Your task to perform on an android device: change notifications settings Image 0: 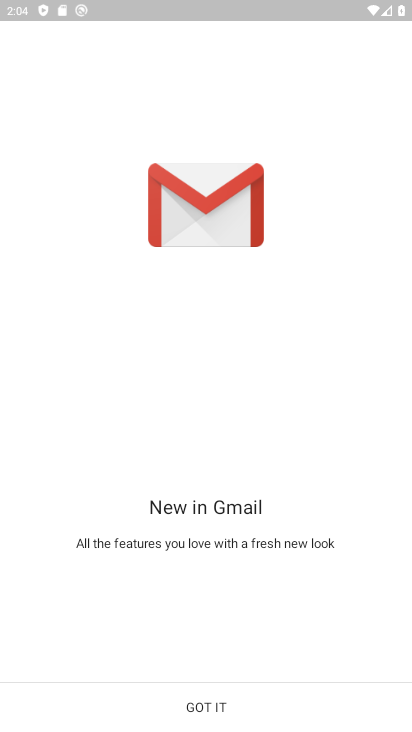
Step 0: click (198, 712)
Your task to perform on an android device: change notifications settings Image 1: 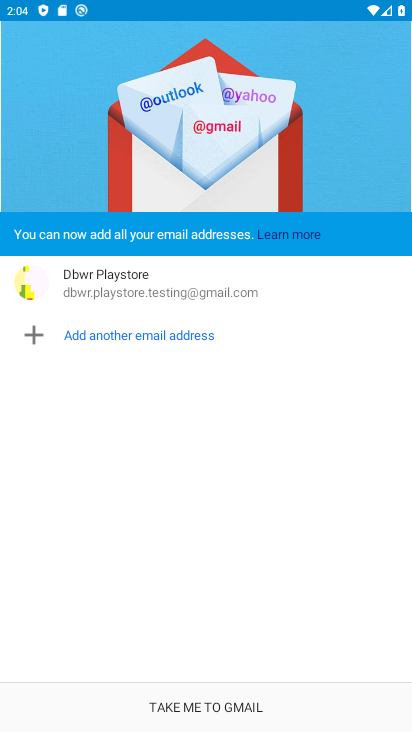
Step 1: click (238, 712)
Your task to perform on an android device: change notifications settings Image 2: 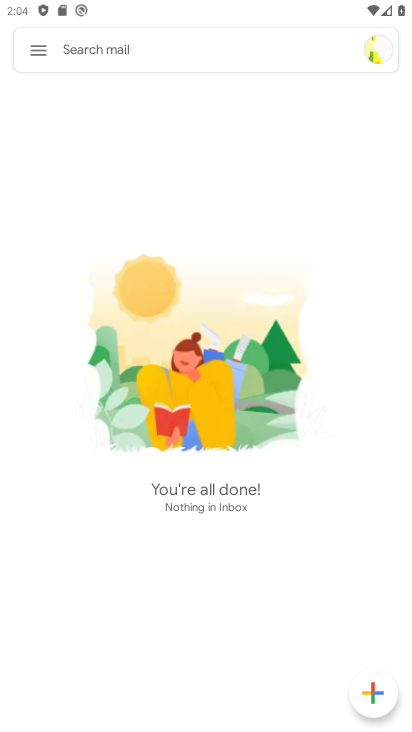
Step 2: press home button
Your task to perform on an android device: change notifications settings Image 3: 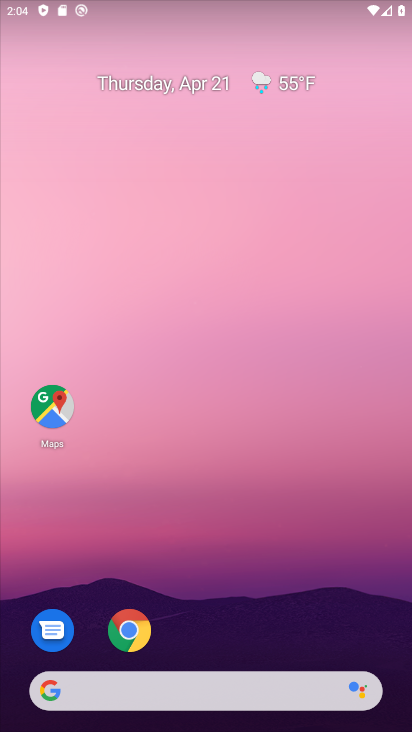
Step 3: drag from (245, 454) to (251, 208)
Your task to perform on an android device: change notifications settings Image 4: 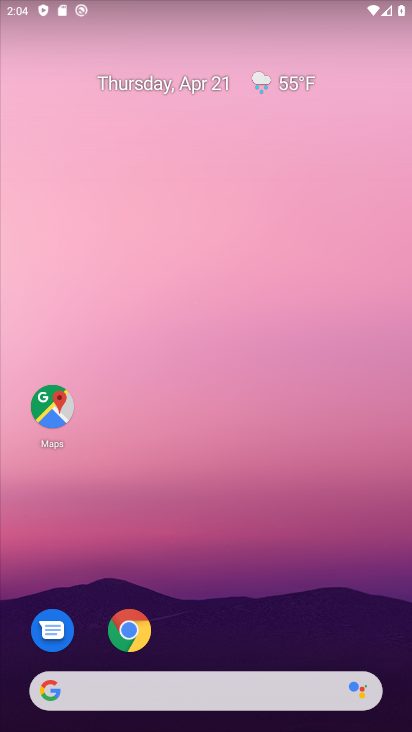
Step 4: drag from (249, 487) to (272, 197)
Your task to perform on an android device: change notifications settings Image 5: 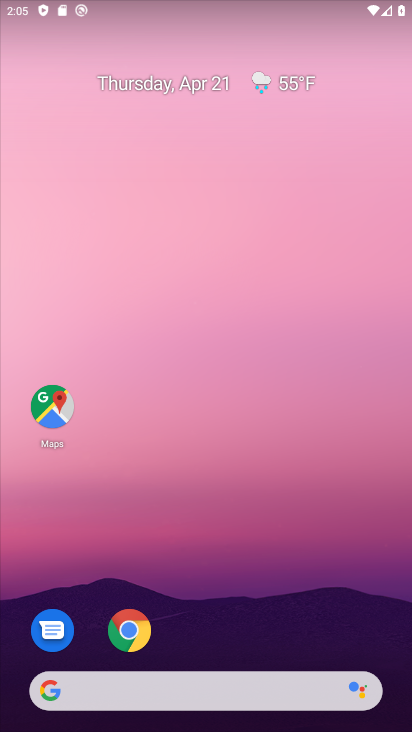
Step 5: drag from (235, 605) to (249, 158)
Your task to perform on an android device: change notifications settings Image 6: 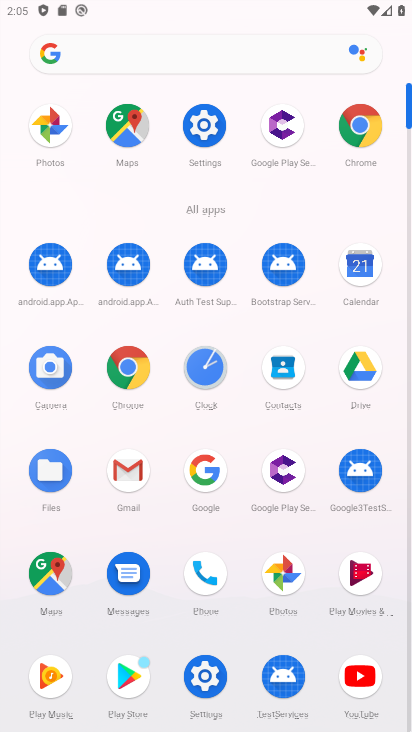
Step 6: click (211, 138)
Your task to perform on an android device: change notifications settings Image 7: 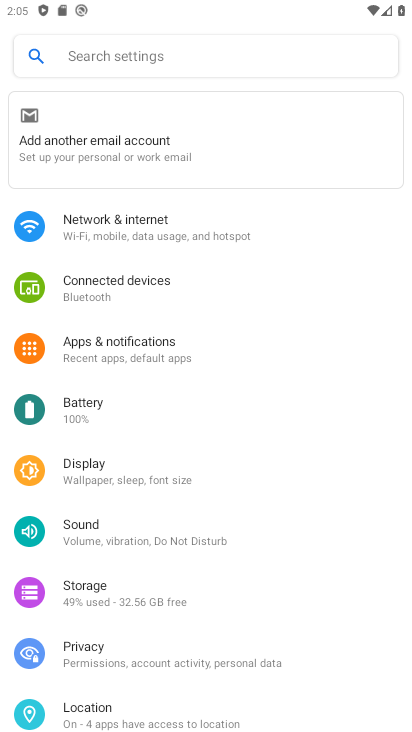
Step 7: drag from (180, 660) to (201, 218)
Your task to perform on an android device: change notifications settings Image 8: 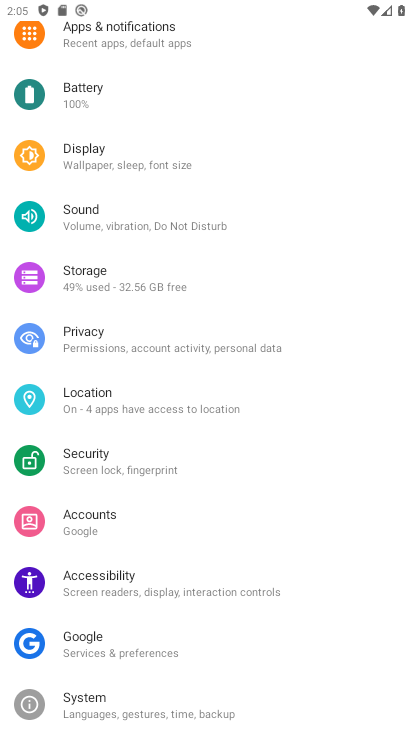
Step 8: drag from (176, 688) to (213, 370)
Your task to perform on an android device: change notifications settings Image 9: 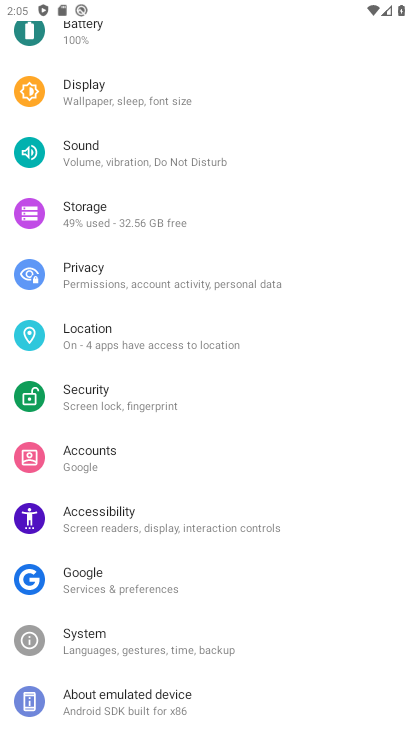
Step 9: drag from (183, 355) to (190, 621)
Your task to perform on an android device: change notifications settings Image 10: 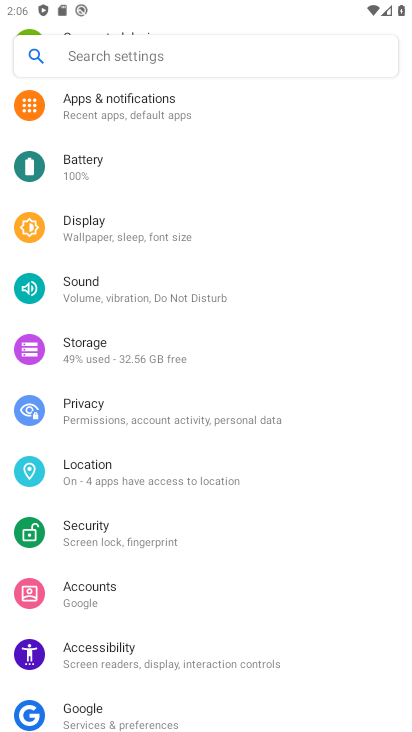
Step 10: click (143, 99)
Your task to perform on an android device: change notifications settings Image 11: 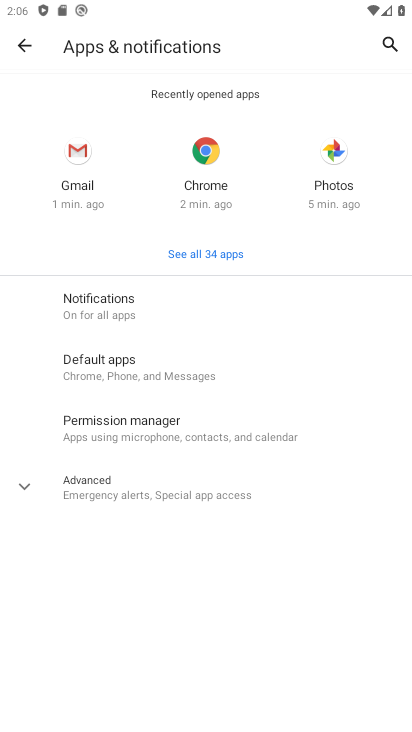
Step 11: click (99, 311)
Your task to perform on an android device: change notifications settings Image 12: 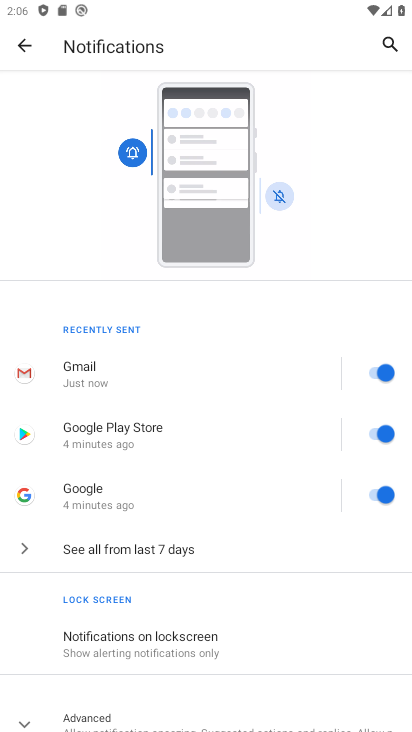
Step 12: task complete